Your task to perform on an android device: change alarm snooze length Image 0: 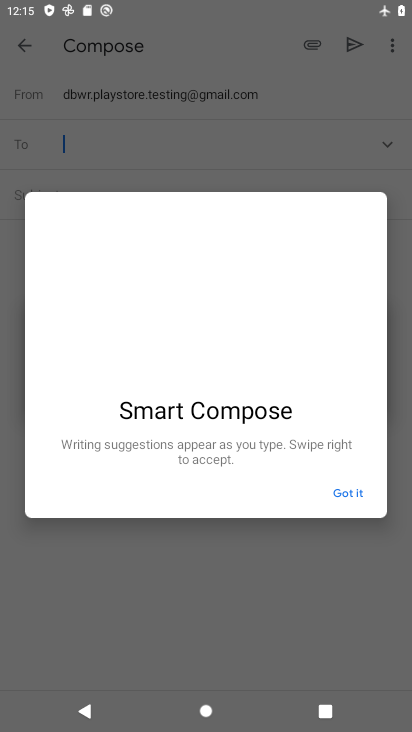
Step 0: press home button
Your task to perform on an android device: change alarm snooze length Image 1: 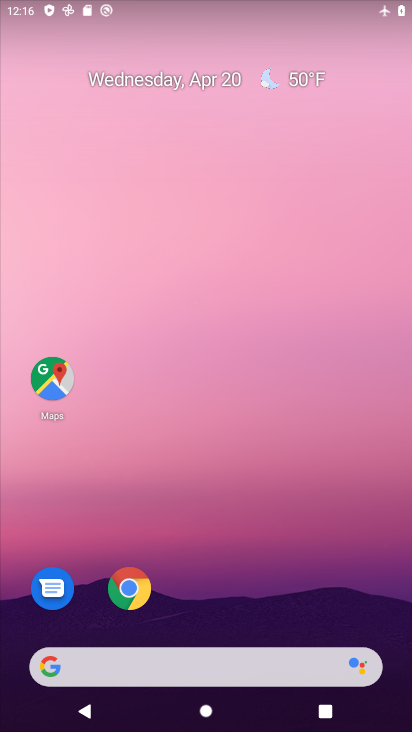
Step 1: drag from (226, 591) to (226, 120)
Your task to perform on an android device: change alarm snooze length Image 2: 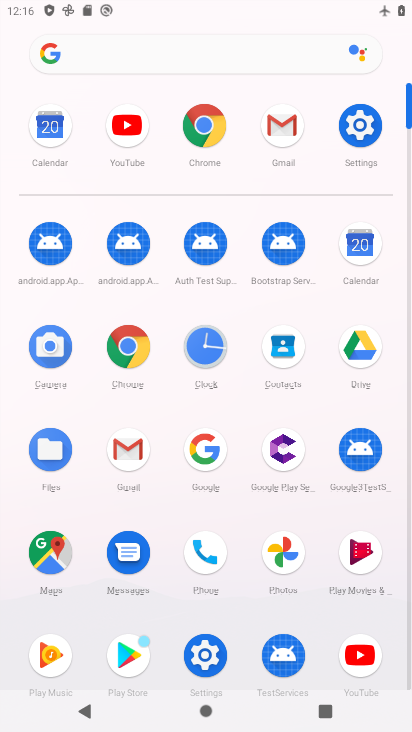
Step 2: click (200, 338)
Your task to perform on an android device: change alarm snooze length Image 3: 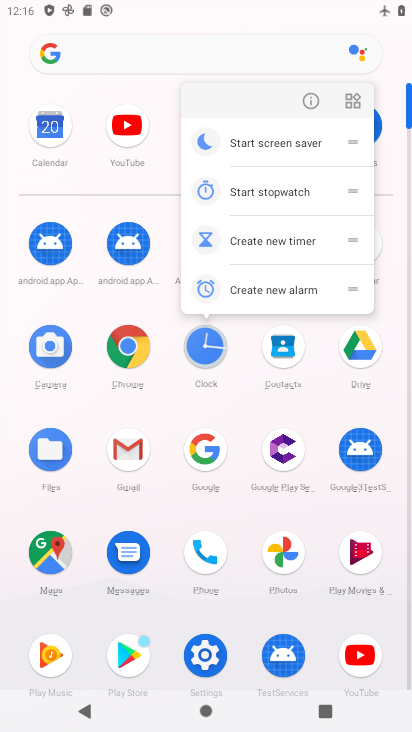
Step 3: click (202, 339)
Your task to perform on an android device: change alarm snooze length Image 4: 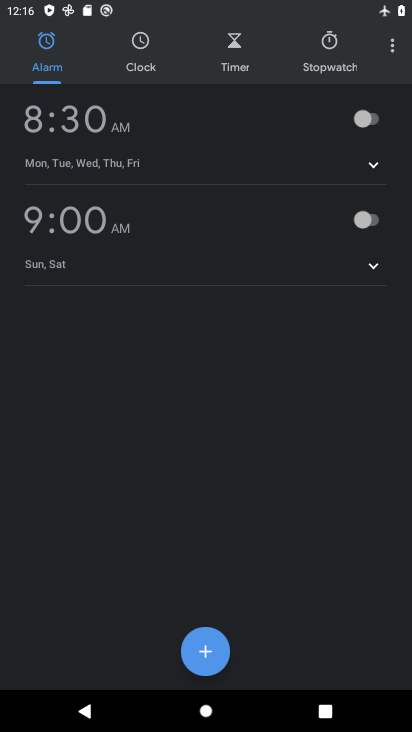
Step 4: click (389, 44)
Your task to perform on an android device: change alarm snooze length Image 5: 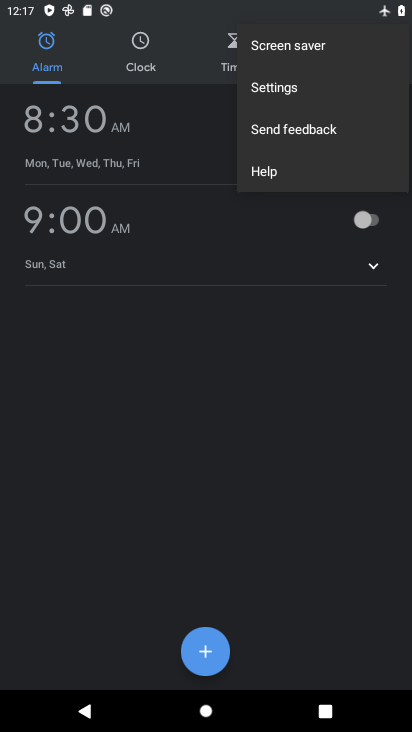
Step 5: click (314, 93)
Your task to perform on an android device: change alarm snooze length Image 6: 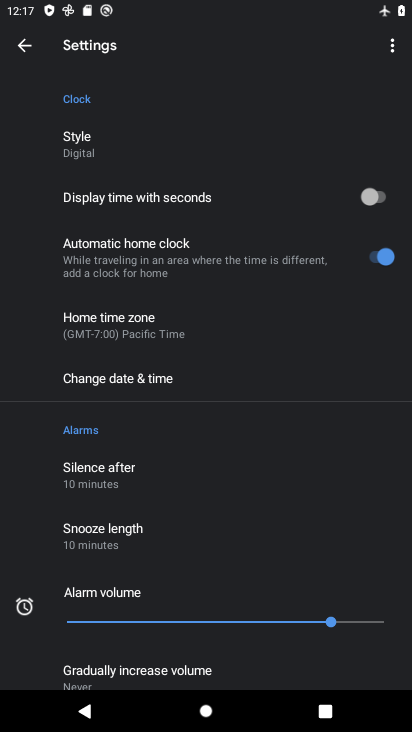
Step 6: click (148, 543)
Your task to perform on an android device: change alarm snooze length Image 7: 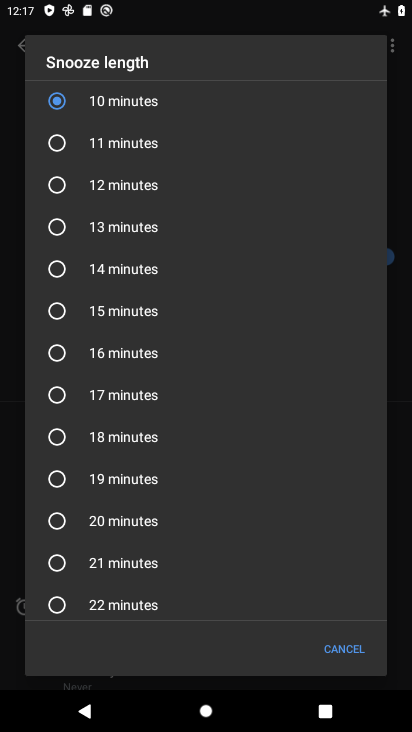
Step 7: click (59, 179)
Your task to perform on an android device: change alarm snooze length Image 8: 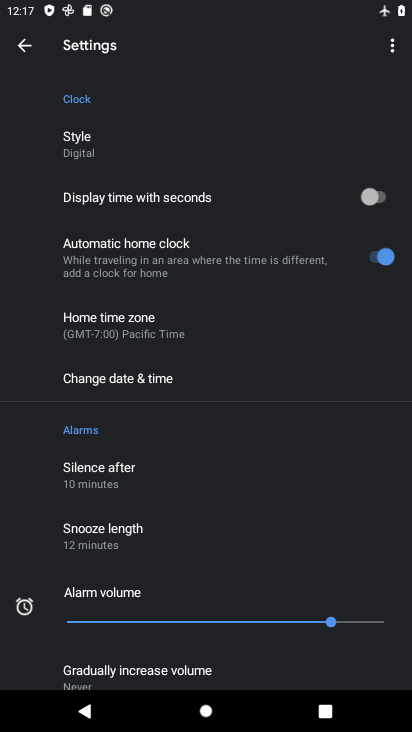
Step 8: task complete